Your task to perform on an android device: toggle pop-ups in chrome Image 0: 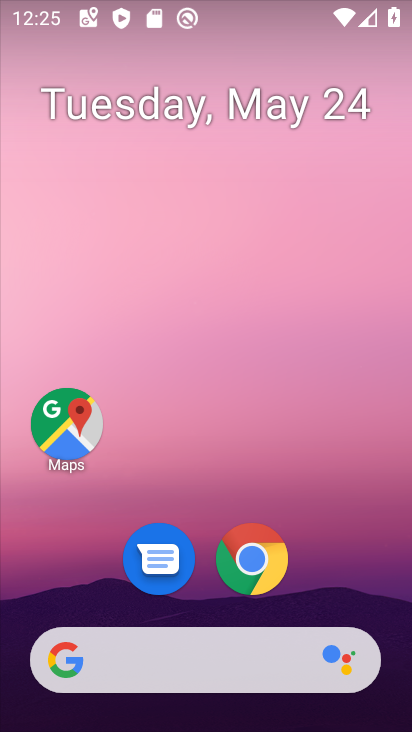
Step 0: drag from (334, 478) to (284, 171)
Your task to perform on an android device: toggle pop-ups in chrome Image 1: 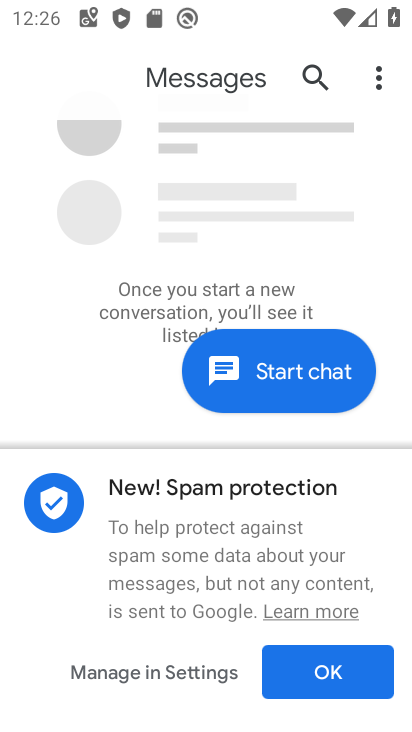
Step 1: drag from (354, 615) to (283, 231)
Your task to perform on an android device: toggle pop-ups in chrome Image 2: 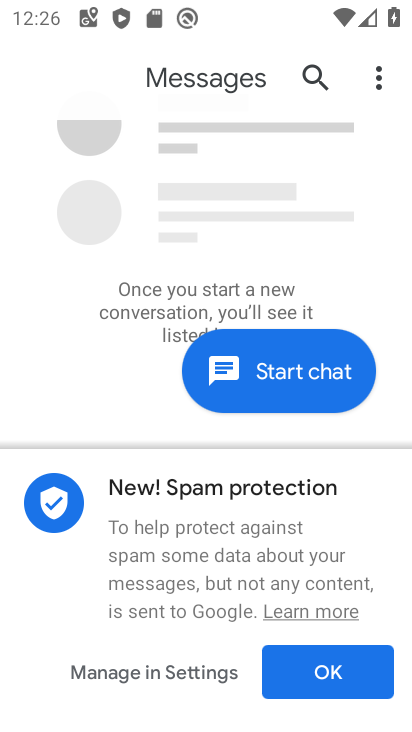
Step 2: press back button
Your task to perform on an android device: toggle pop-ups in chrome Image 3: 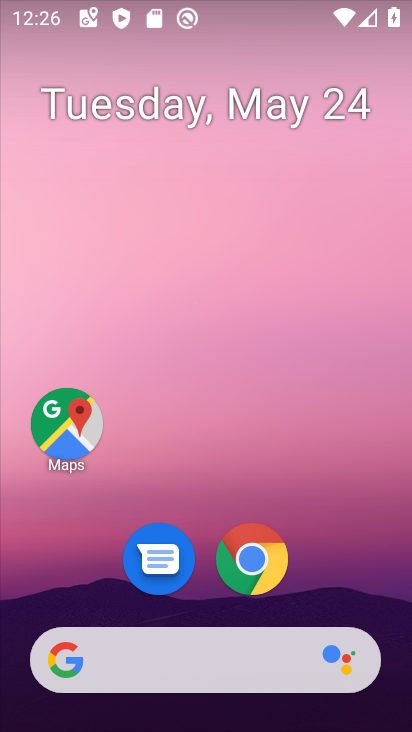
Step 3: click (211, 70)
Your task to perform on an android device: toggle pop-ups in chrome Image 4: 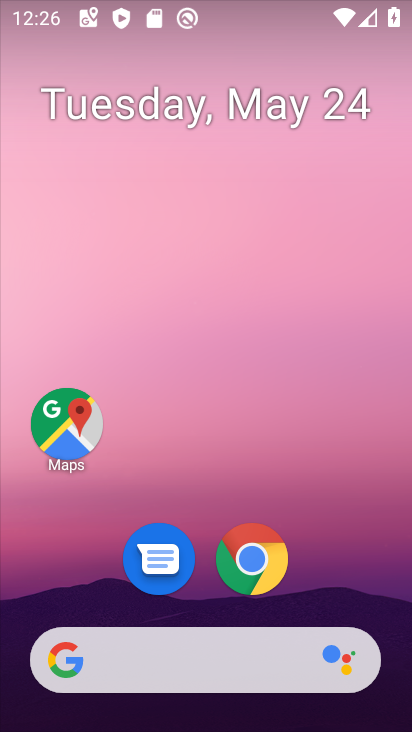
Step 4: drag from (320, 480) to (250, 30)
Your task to perform on an android device: toggle pop-ups in chrome Image 5: 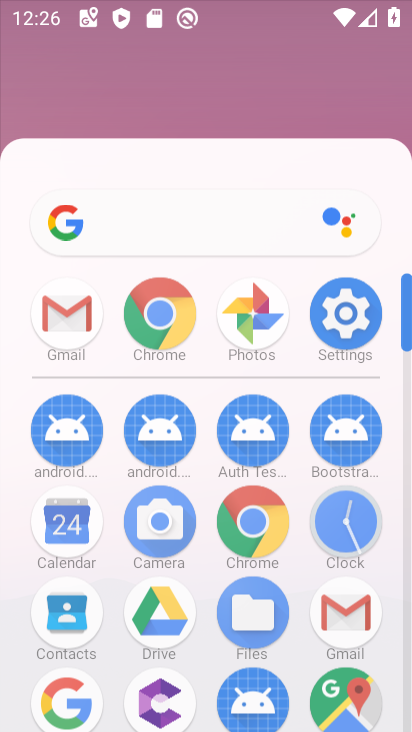
Step 5: drag from (324, 573) to (232, 115)
Your task to perform on an android device: toggle pop-ups in chrome Image 6: 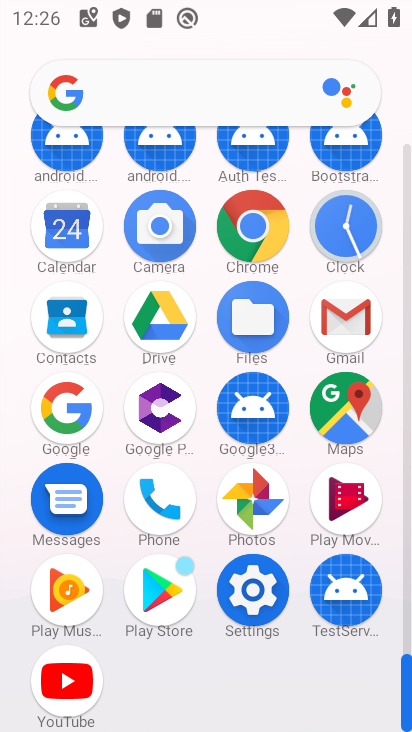
Step 6: click (236, 219)
Your task to perform on an android device: toggle pop-ups in chrome Image 7: 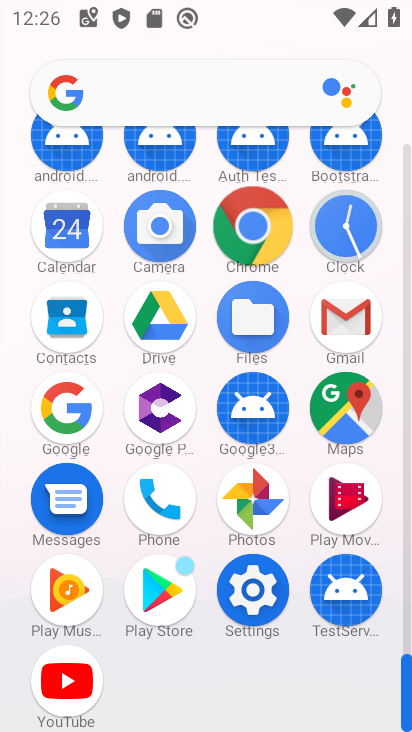
Step 7: click (236, 219)
Your task to perform on an android device: toggle pop-ups in chrome Image 8: 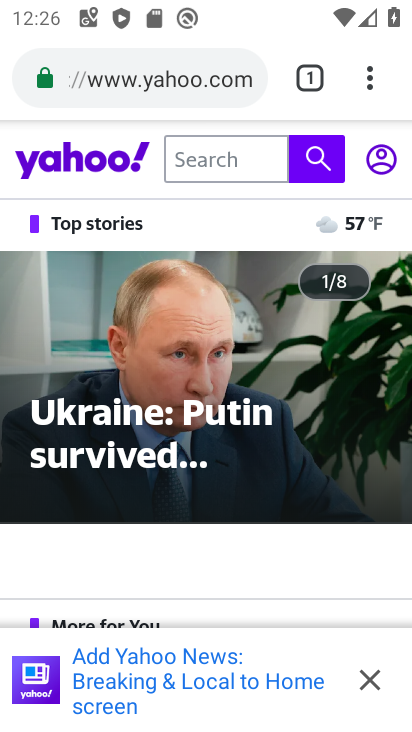
Step 8: click (367, 83)
Your task to perform on an android device: toggle pop-ups in chrome Image 9: 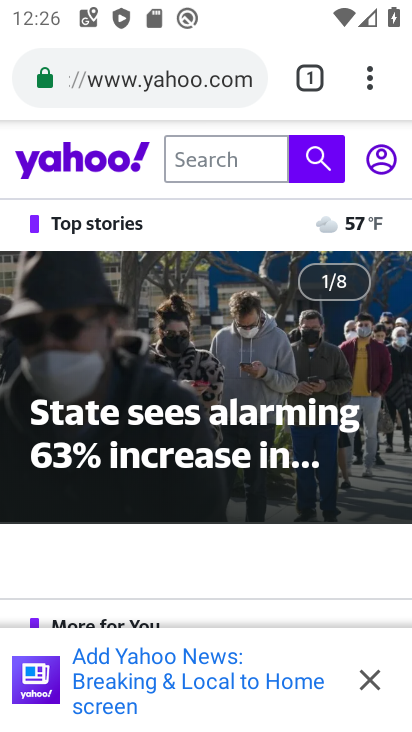
Step 9: click (365, 80)
Your task to perform on an android device: toggle pop-ups in chrome Image 10: 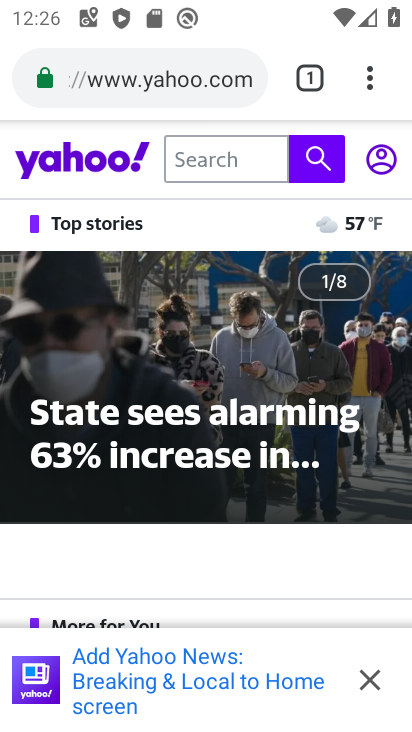
Step 10: drag from (371, 80) to (114, 615)
Your task to perform on an android device: toggle pop-ups in chrome Image 11: 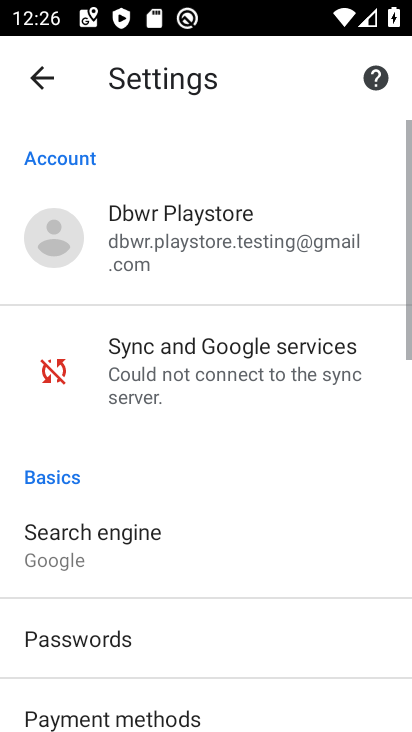
Step 11: click (91, 618)
Your task to perform on an android device: toggle pop-ups in chrome Image 12: 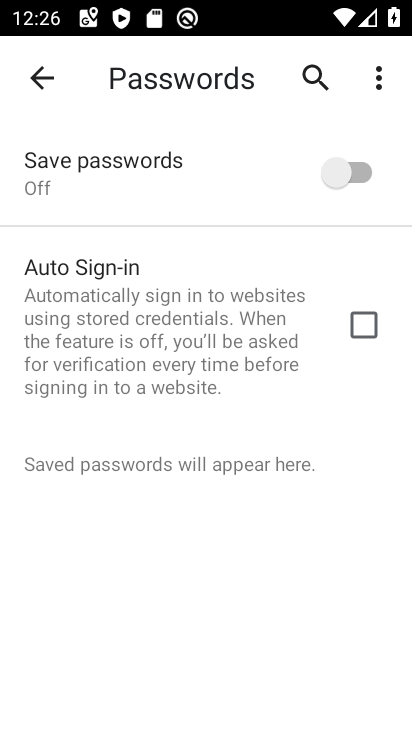
Step 12: click (29, 71)
Your task to perform on an android device: toggle pop-ups in chrome Image 13: 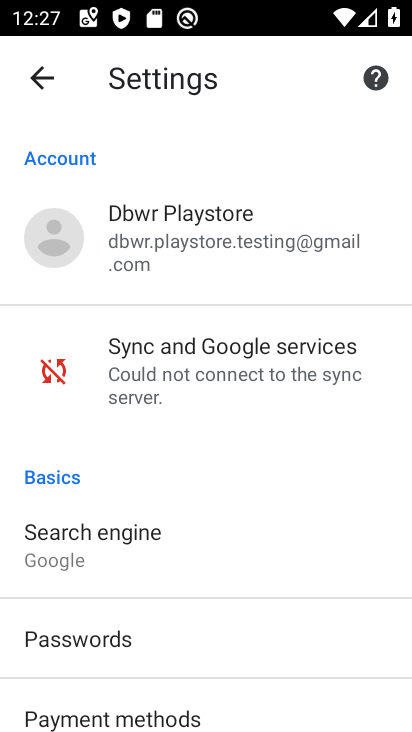
Step 13: drag from (147, 593) to (155, 196)
Your task to perform on an android device: toggle pop-ups in chrome Image 14: 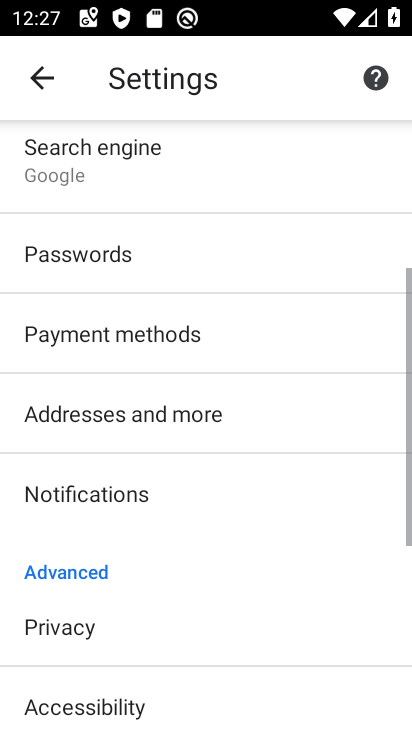
Step 14: drag from (186, 403) to (215, 106)
Your task to perform on an android device: toggle pop-ups in chrome Image 15: 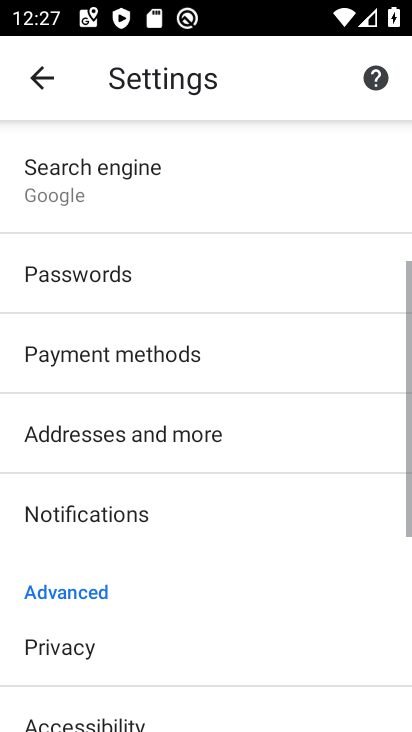
Step 15: drag from (208, 269) to (208, 10)
Your task to perform on an android device: toggle pop-ups in chrome Image 16: 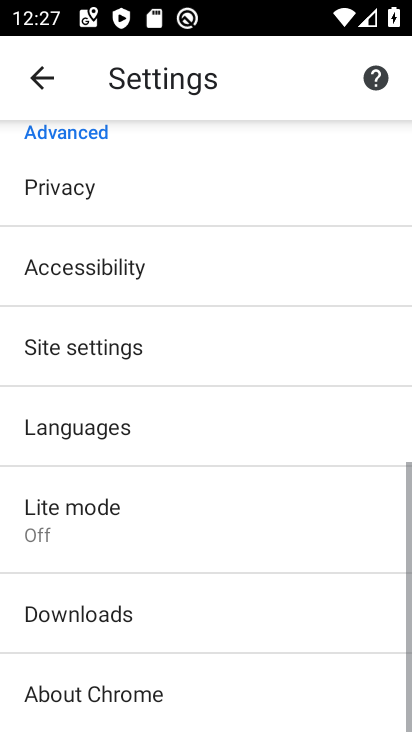
Step 16: drag from (168, 508) to (153, 137)
Your task to perform on an android device: toggle pop-ups in chrome Image 17: 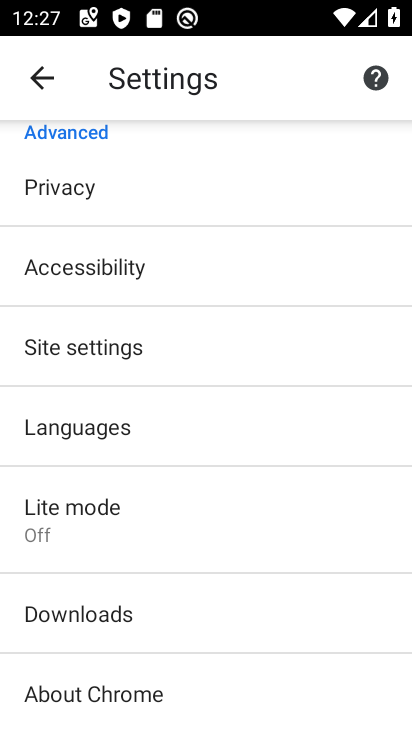
Step 17: click (206, 76)
Your task to perform on an android device: toggle pop-ups in chrome Image 18: 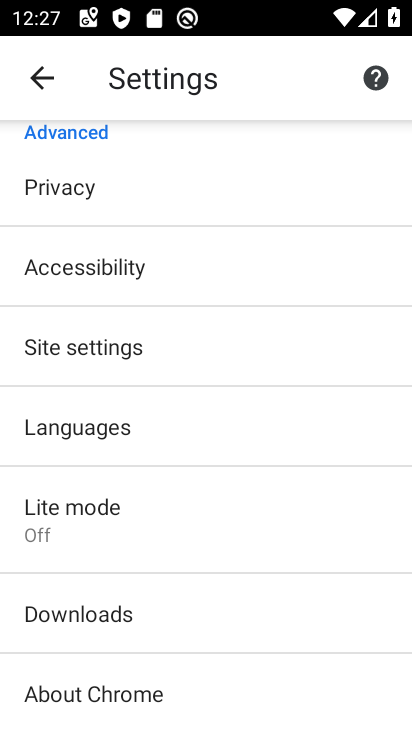
Step 18: drag from (243, 245) to (252, 58)
Your task to perform on an android device: toggle pop-ups in chrome Image 19: 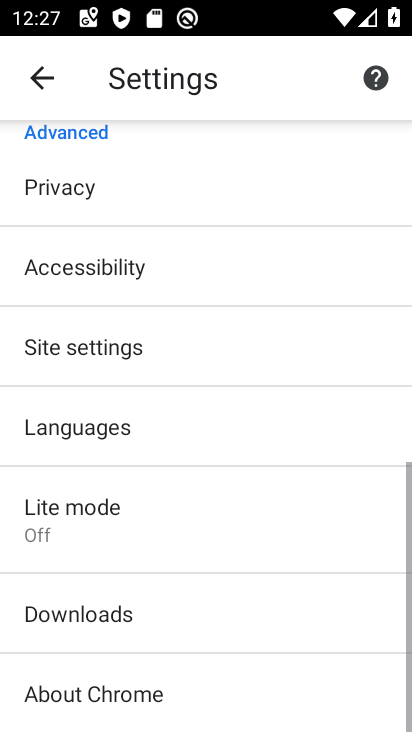
Step 19: drag from (198, 468) to (250, 18)
Your task to perform on an android device: toggle pop-ups in chrome Image 20: 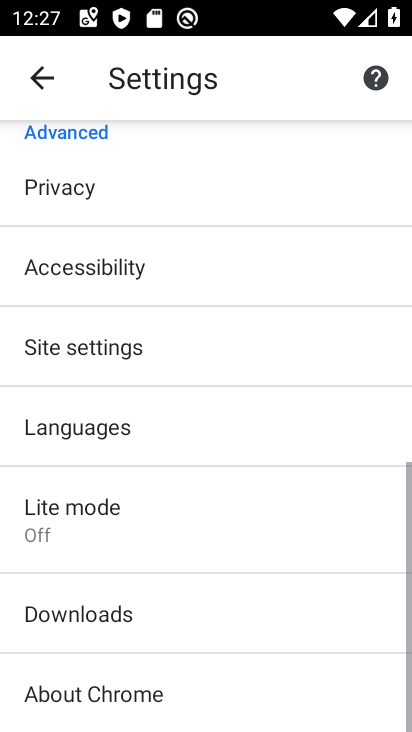
Step 20: click (233, 67)
Your task to perform on an android device: toggle pop-ups in chrome Image 21: 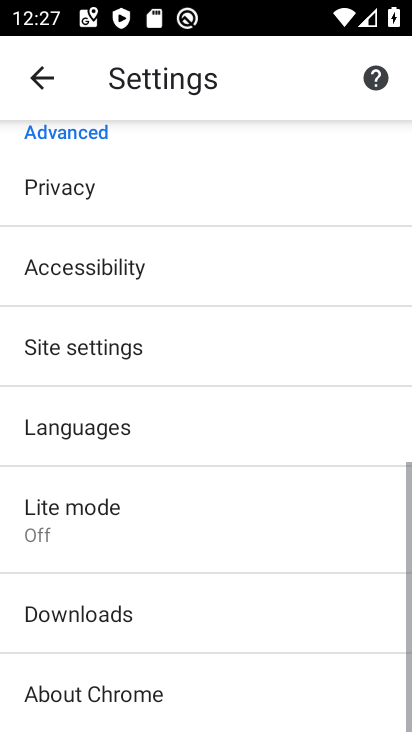
Step 21: drag from (156, 404) to (181, 10)
Your task to perform on an android device: toggle pop-ups in chrome Image 22: 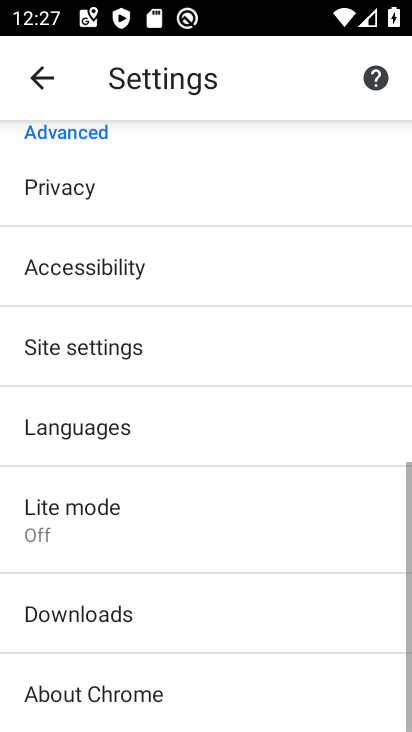
Step 22: drag from (148, 412) to (159, 71)
Your task to perform on an android device: toggle pop-ups in chrome Image 23: 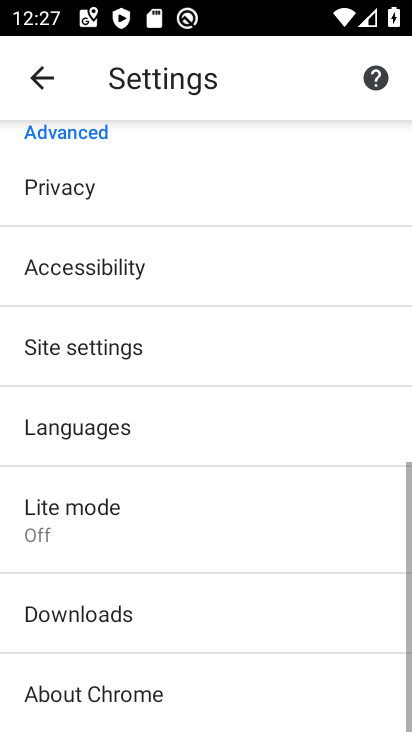
Step 23: drag from (164, 528) to (162, 154)
Your task to perform on an android device: toggle pop-ups in chrome Image 24: 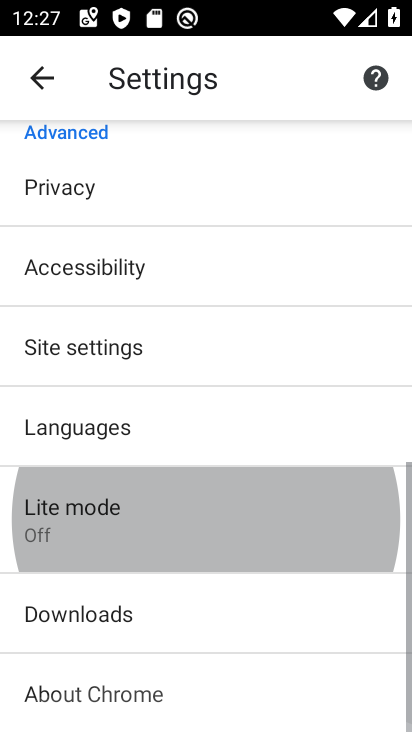
Step 24: drag from (154, 612) to (167, 70)
Your task to perform on an android device: toggle pop-ups in chrome Image 25: 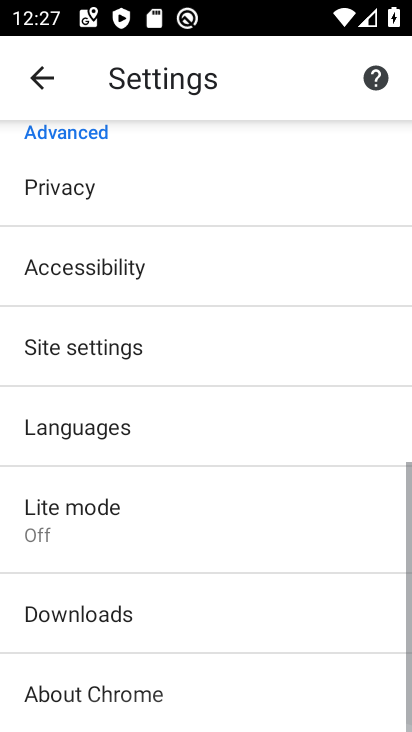
Step 25: drag from (185, 444) to (102, 17)
Your task to perform on an android device: toggle pop-ups in chrome Image 26: 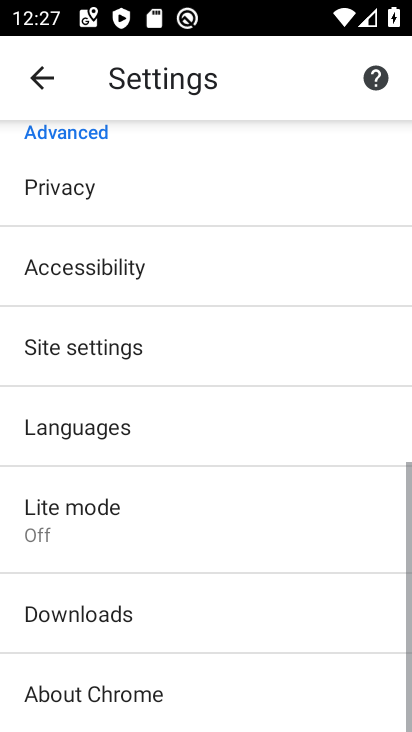
Step 26: drag from (99, 290) to (196, 49)
Your task to perform on an android device: toggle pop-ups in chrome Image 27: 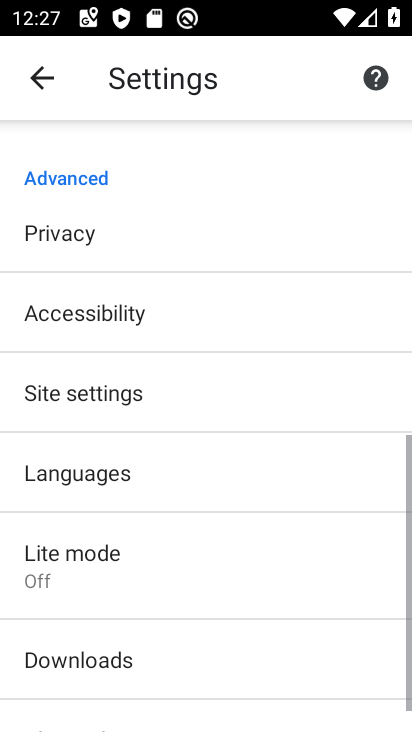
Step 27: drag from (157, 353) to (159, 19)
Your task to perform on an android device: toggle pop-ups in chrome Image 28: 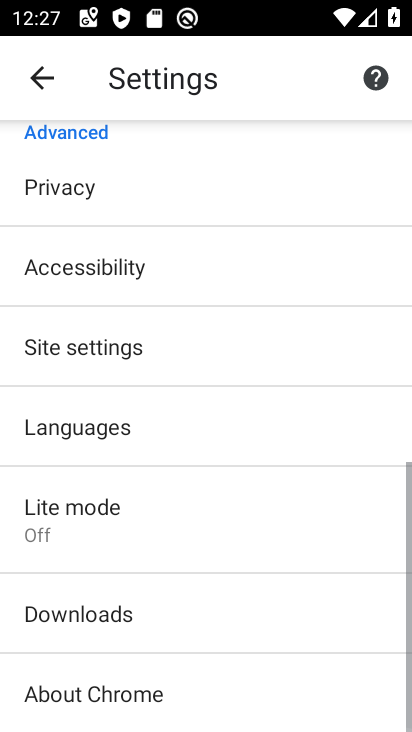
Step 28: drag from (178, 606) to (201, 133)
Your task to perform on an android device: toggle pop-ups in chrome Image 29: 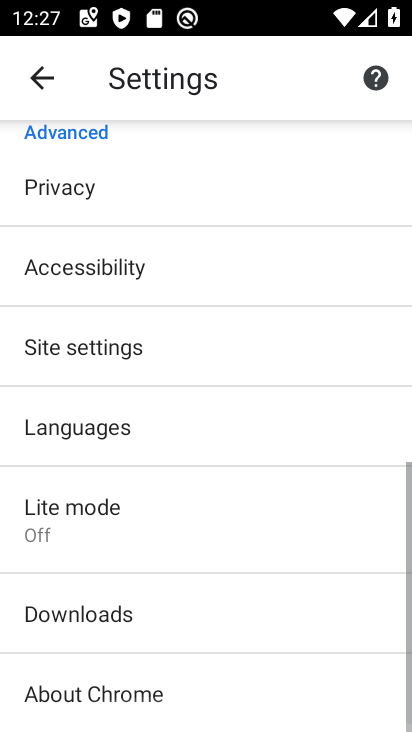
Step 29: drag from (155, 438) to (163, 153)
Your task to perform on an android device: toggle pop-ups in chrome Image 30: 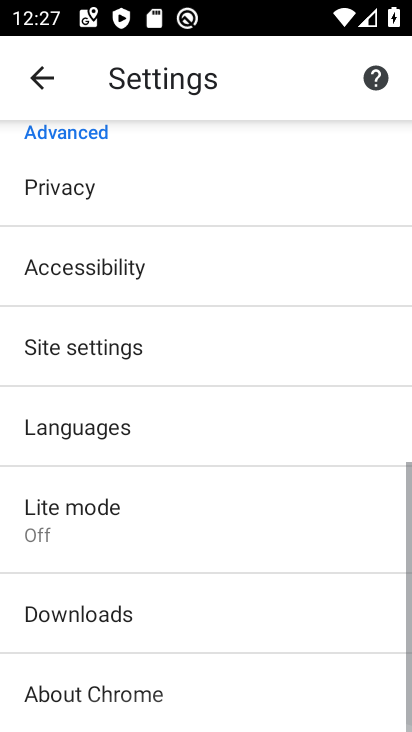
Step 30: drag from (132, 339) to (129, 102)
Your task to perform on an android device: toggle pop-ups in chrome Image 31: 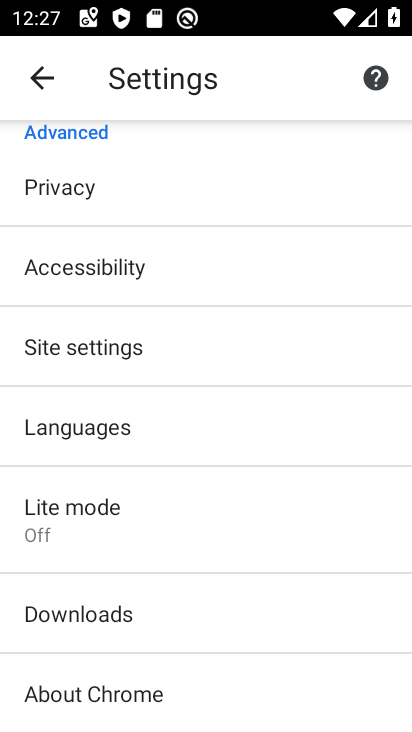
Step 31: click (69, 348)
Your task to perform on an android device: toggle pop-ups in chrome Image 32: 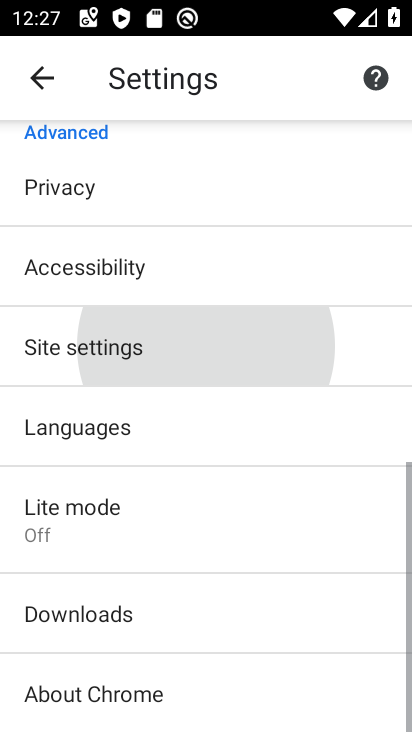
Step 32: click (82, 364)
Your task to perform on an android device: toggle pop-ups in chrome Image 33: 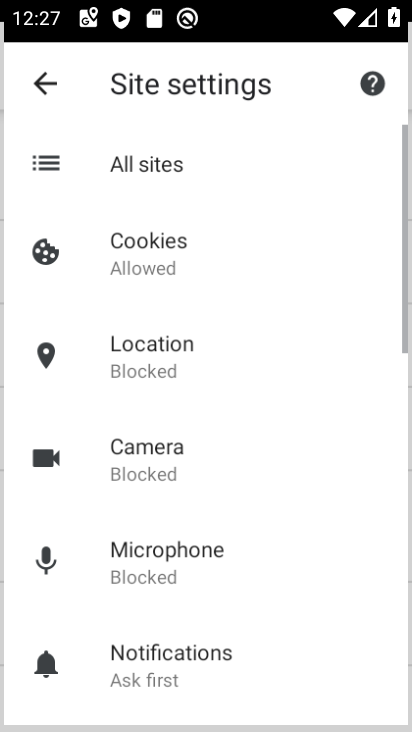
Step 33: click (88, 351)
Your task to perform on an android device: toggle pop-ups in chrome Image 34: 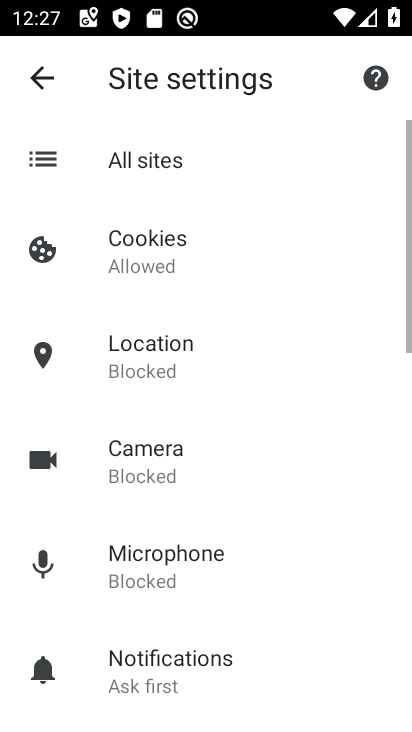
Step 34: click (94, 356)
Your task to perform on an android device: toggle pop-ups in chrome Image 35: 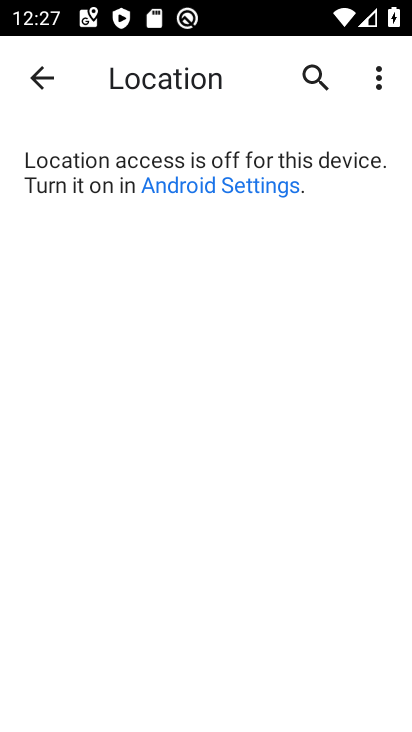
Step 35: click (69, 342)
Your task to perform on an android device: toggle pop-ups in chrome Image 36: 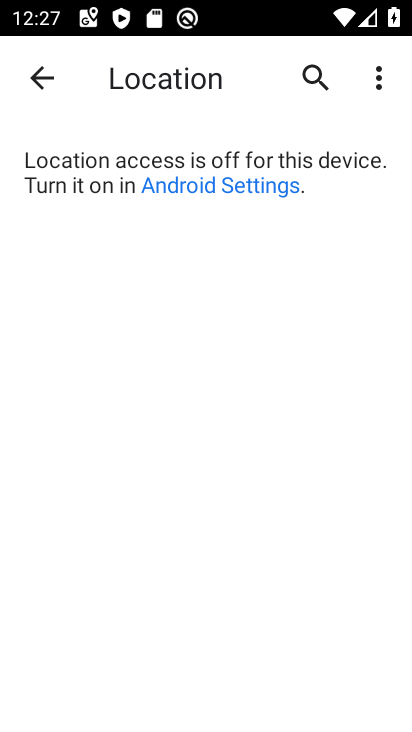
Step 36: click (50, 74)
Your task to perform on an android device: toggle pop-ups in chrome Image 37: 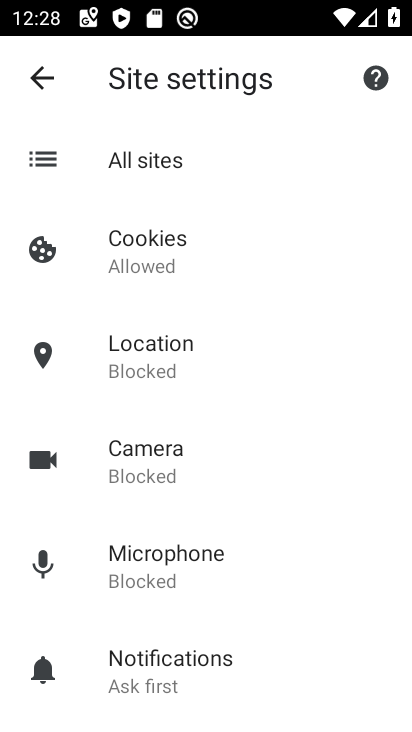
Step 37: task complete